Your task to perform on an android device: Open CNN.com Image 0: 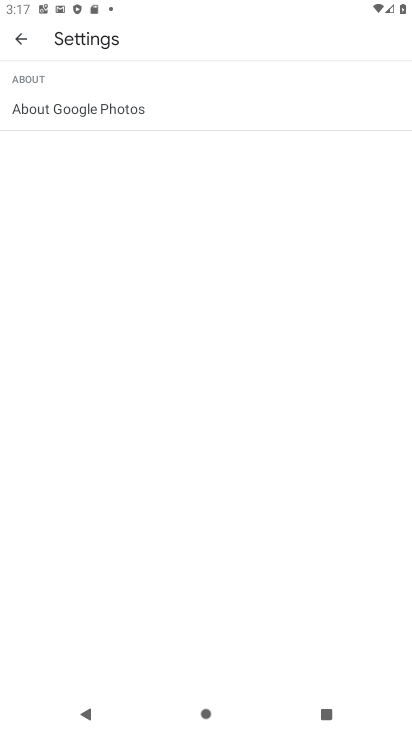
Step 0: press home button
Your task to perform on an android device: Open CNN.com Image 1: 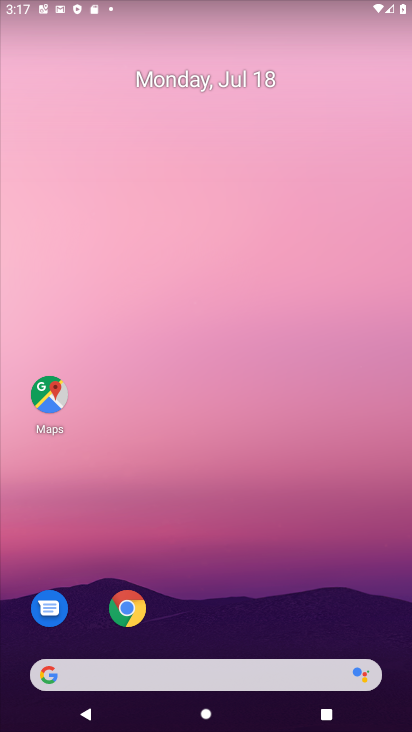
Step 1: drag from (255, 655) to (328, 207)
Your task to perform on an android device: Open CNN.com Image 2: 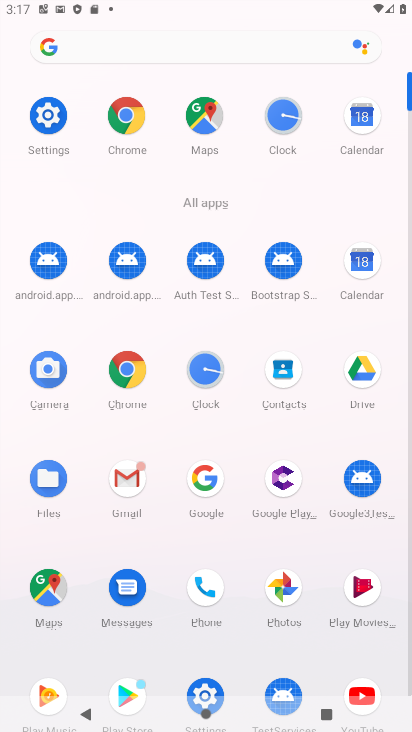
Step 2: click (134, 397)
Your task to perform on an android device: Open CNN.com Image 3: 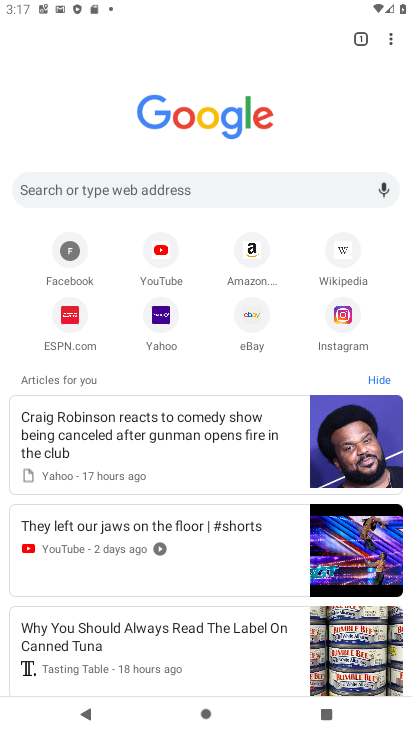
Step 3: click (228, 193)
Your task to perform on an android device: Open CNN.com Image 4: 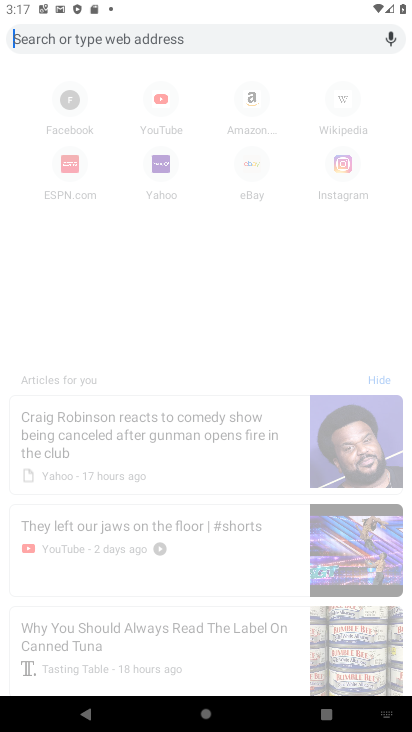
Step 4: type "cnn"
Your task to perform on an android device: Open CNN.com Image 5: 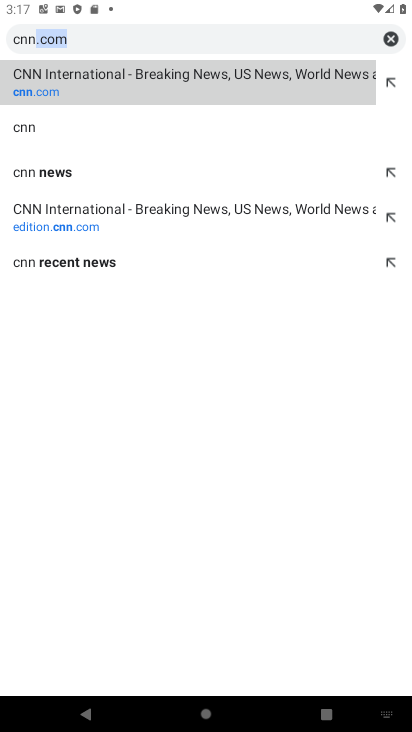
Step 5: click (120, 87)
Your task to perform on an android device: Open CNN.com Image 6: 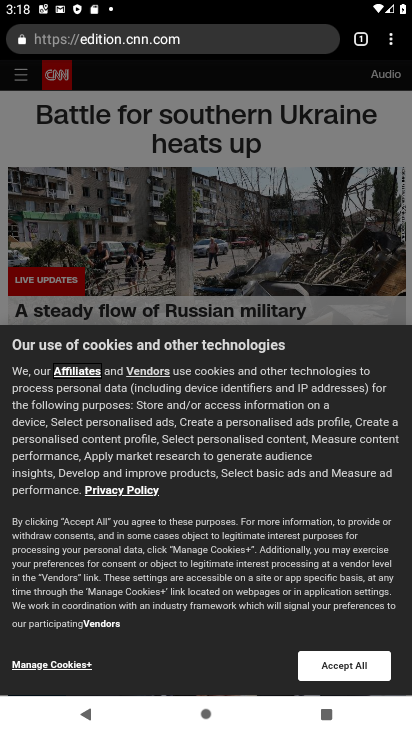
Step 6: task complete